Your task to perform on an android device: Open wifi settings Image 0: 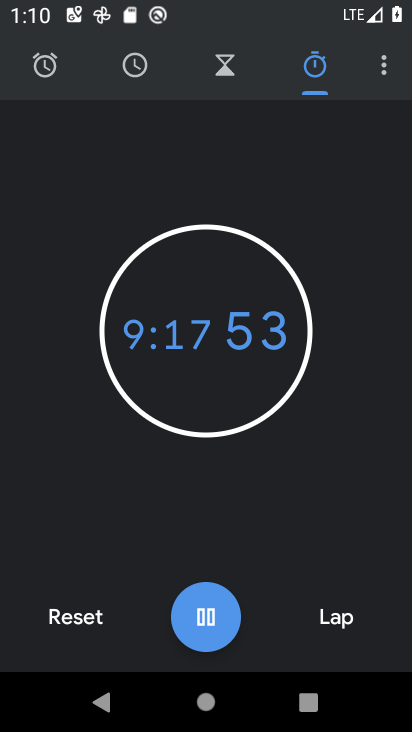
Step 0: press home button
Your task to perform on an android device: Open wifi settings Image 1: 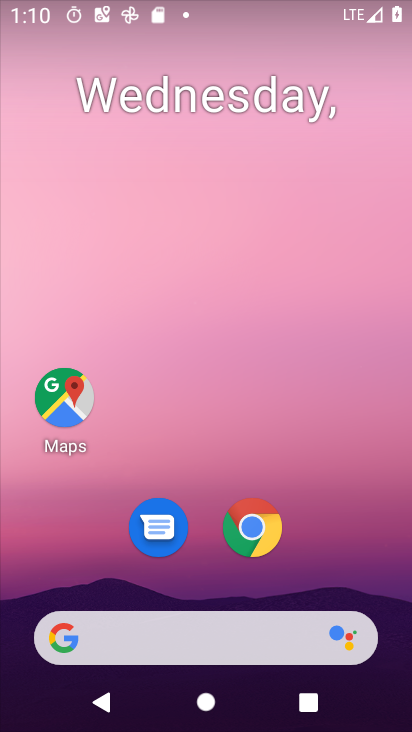
Step 1: drag from (208, 646) to (228, 42)
Your task to perform on an android device: Open wifi settings Image 2: 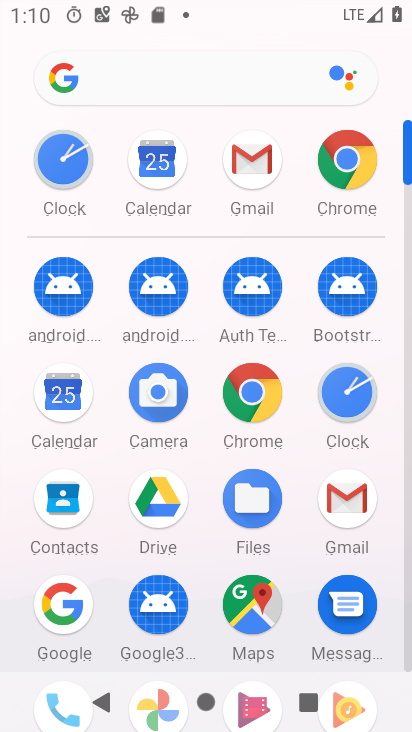
Step 2: drag from (312, 625) to (291, 163)
Your task to perform on an android device: Open wifi settings Image 3: 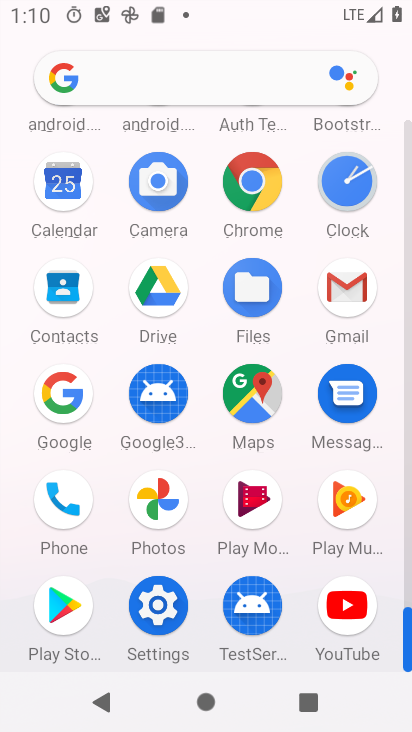
Step 3: click (151, 616)
Your task to perform on an android device: Open wifi settings Image 4: 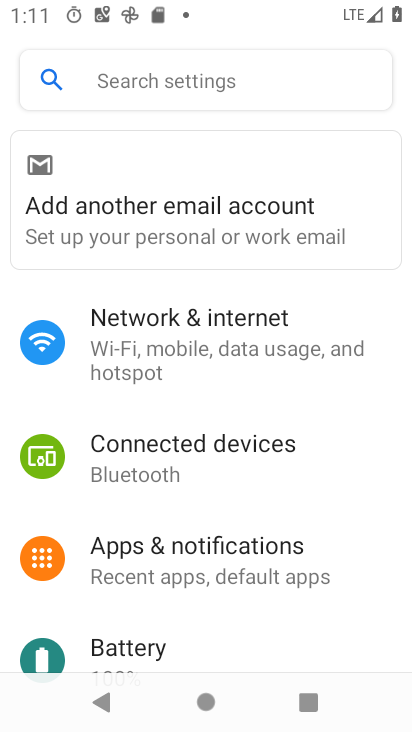
Step 4: click (187, 333)
Your task to perform on an android device: Open wifi settings Image 5: 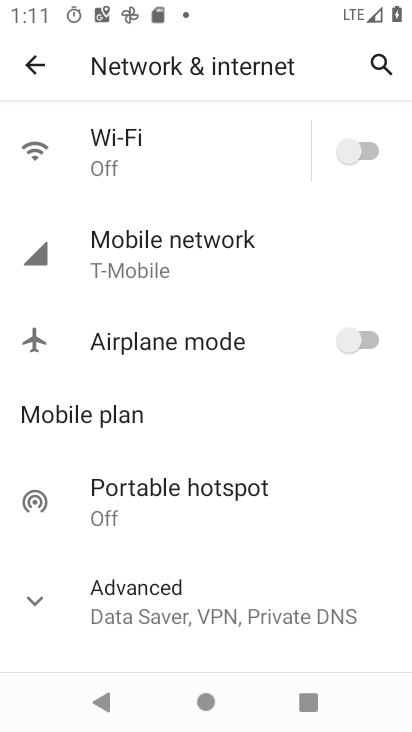
Step 5: click (133, 164)
Your task to perform on an android device: Open wifi settings Image 6: 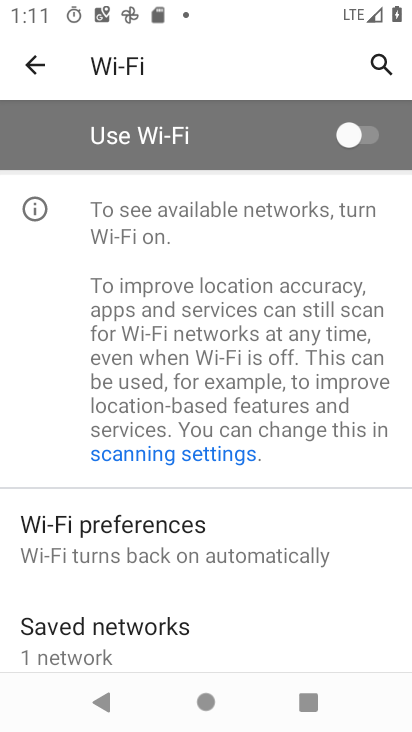
Step 6: task complete